Your task to perform on an android device: turn on location history Image 0: 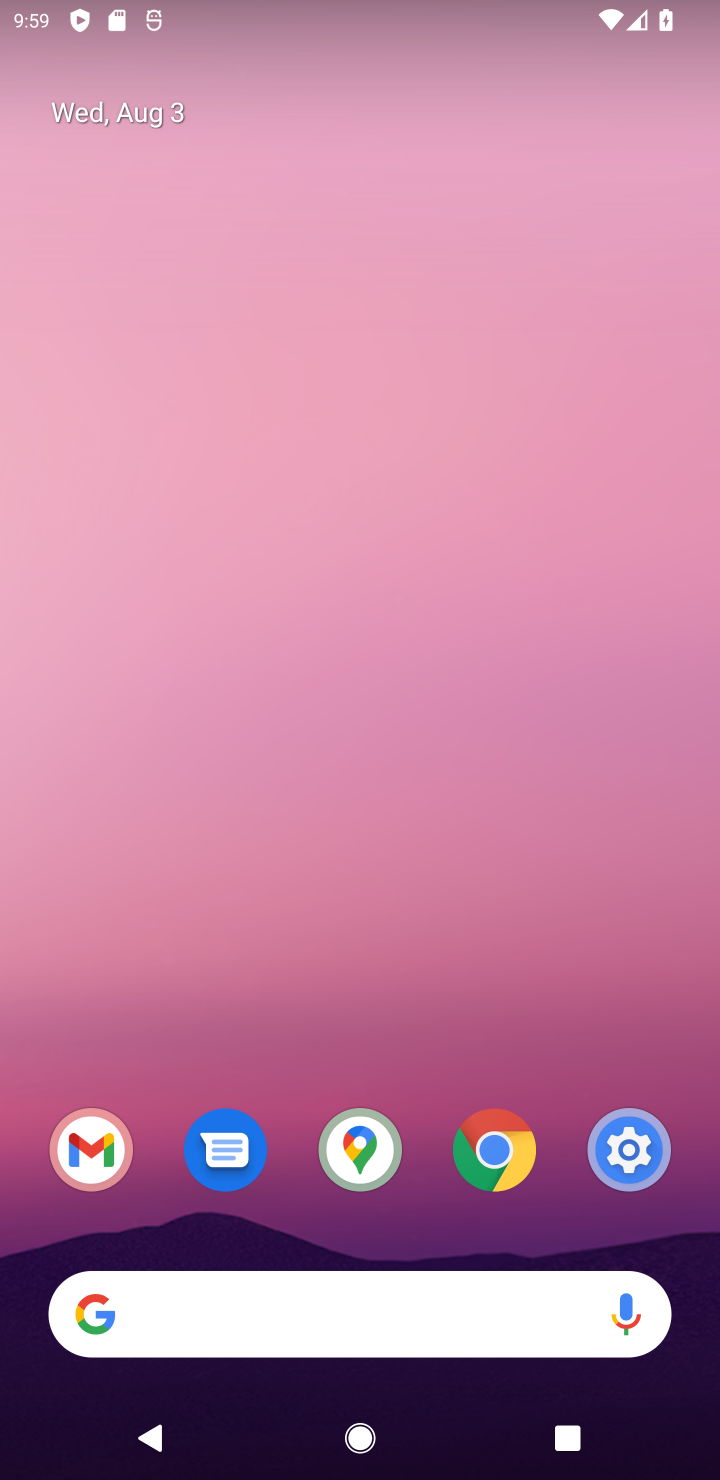
Step 0: press home button
Your task to perform on an android device: turn on location history Image 1: 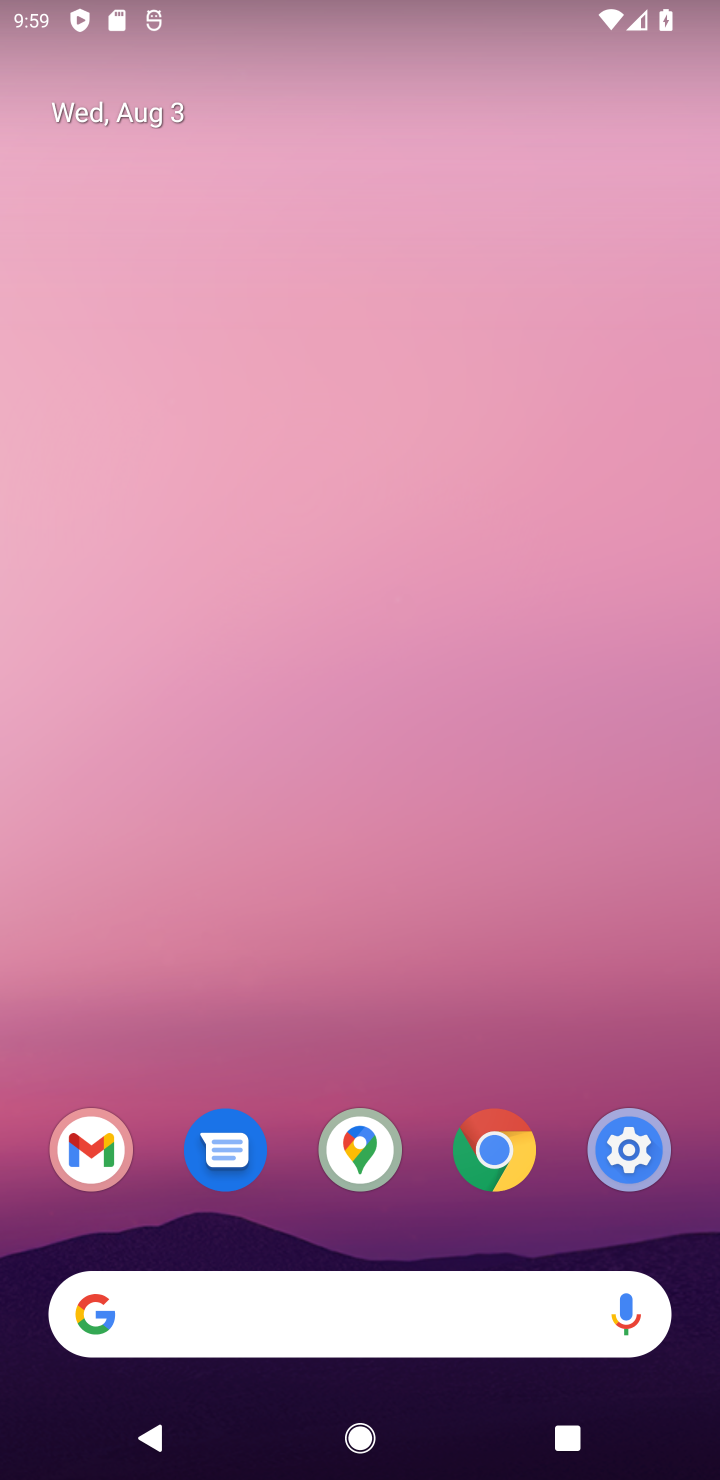
Step 1: drag from (412, 1104) to (310, 4)
Your task to perform on an android device: turn on location history Image 2: 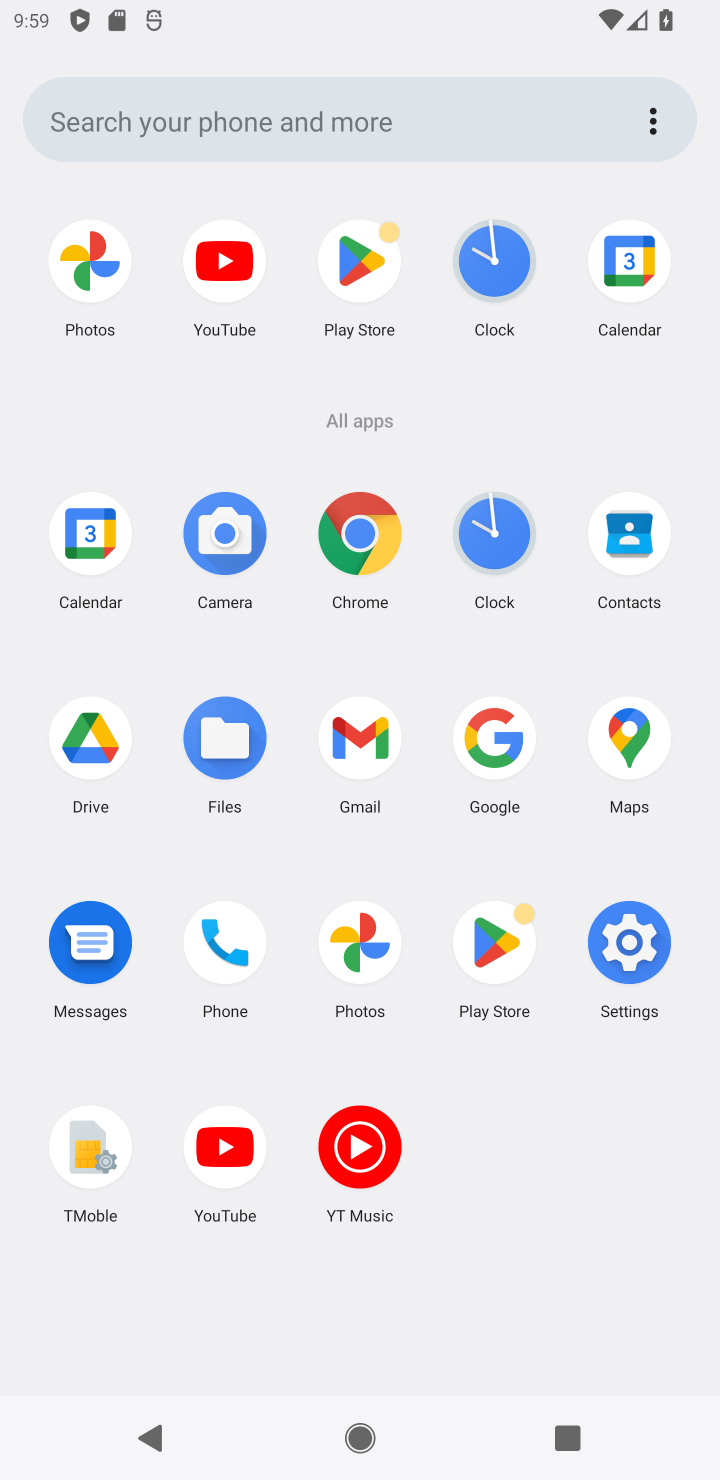
Step 2: click (627, 930)
Your task to perform on an android device: turn on location history Image 3: 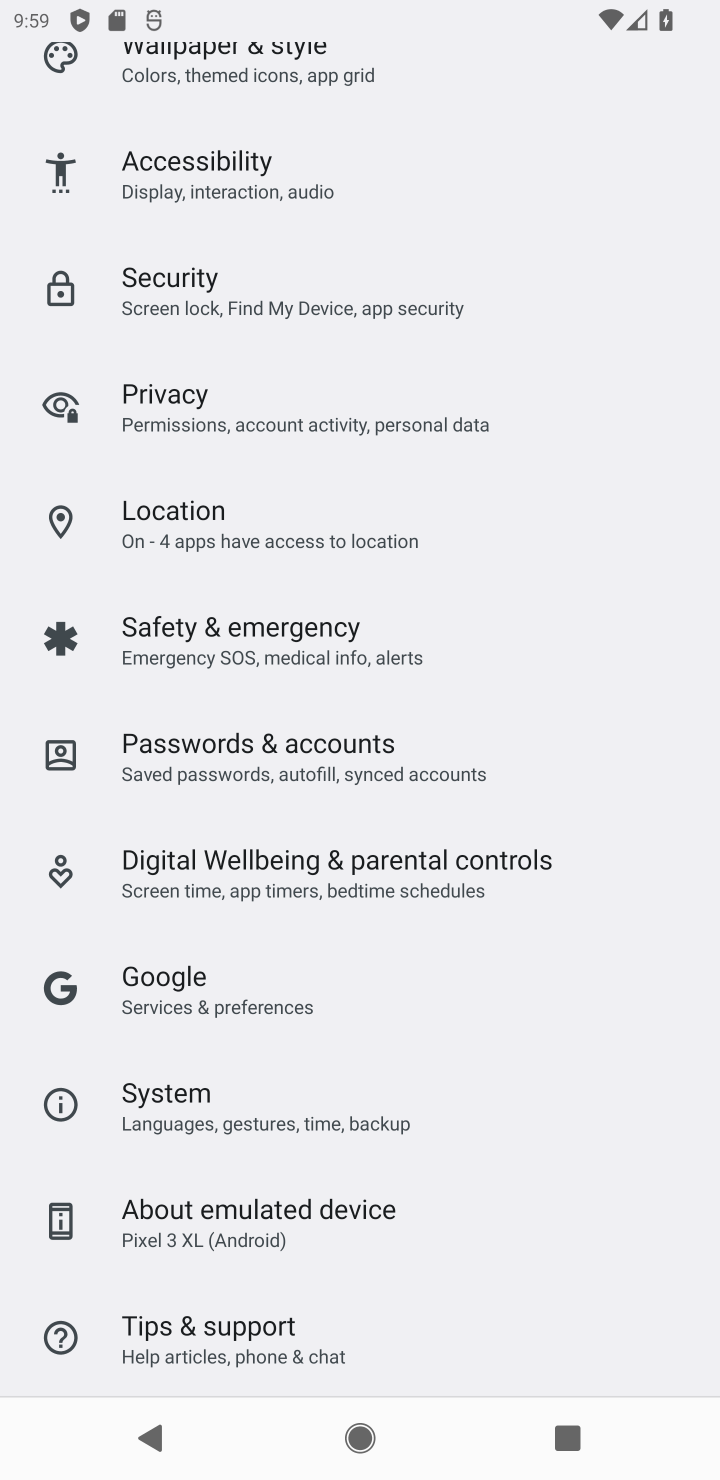
Step 3: click (245, 512)
Your task to perform on an android device: turn on location history Image 4: 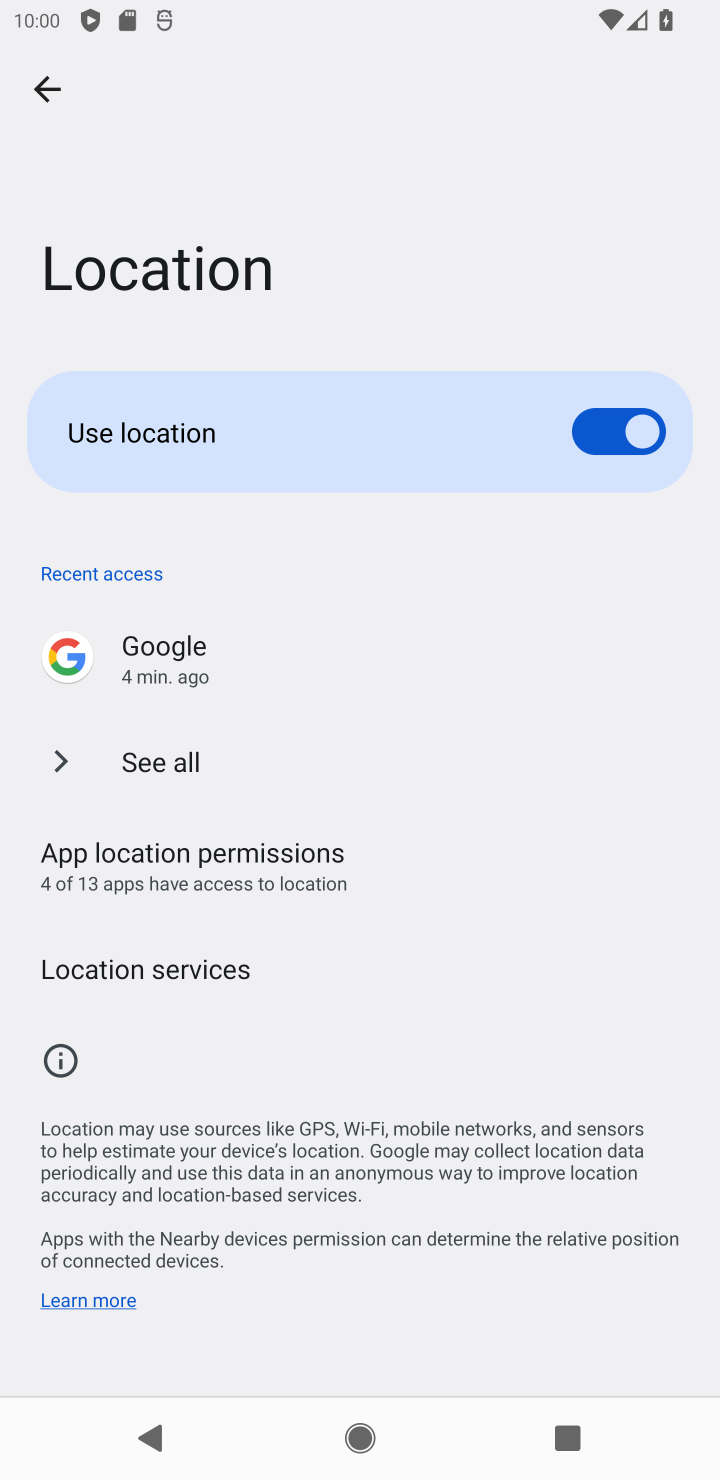
Step 4: click (154, 958)
Your task to perform on an android device: turn on location history Image 5: 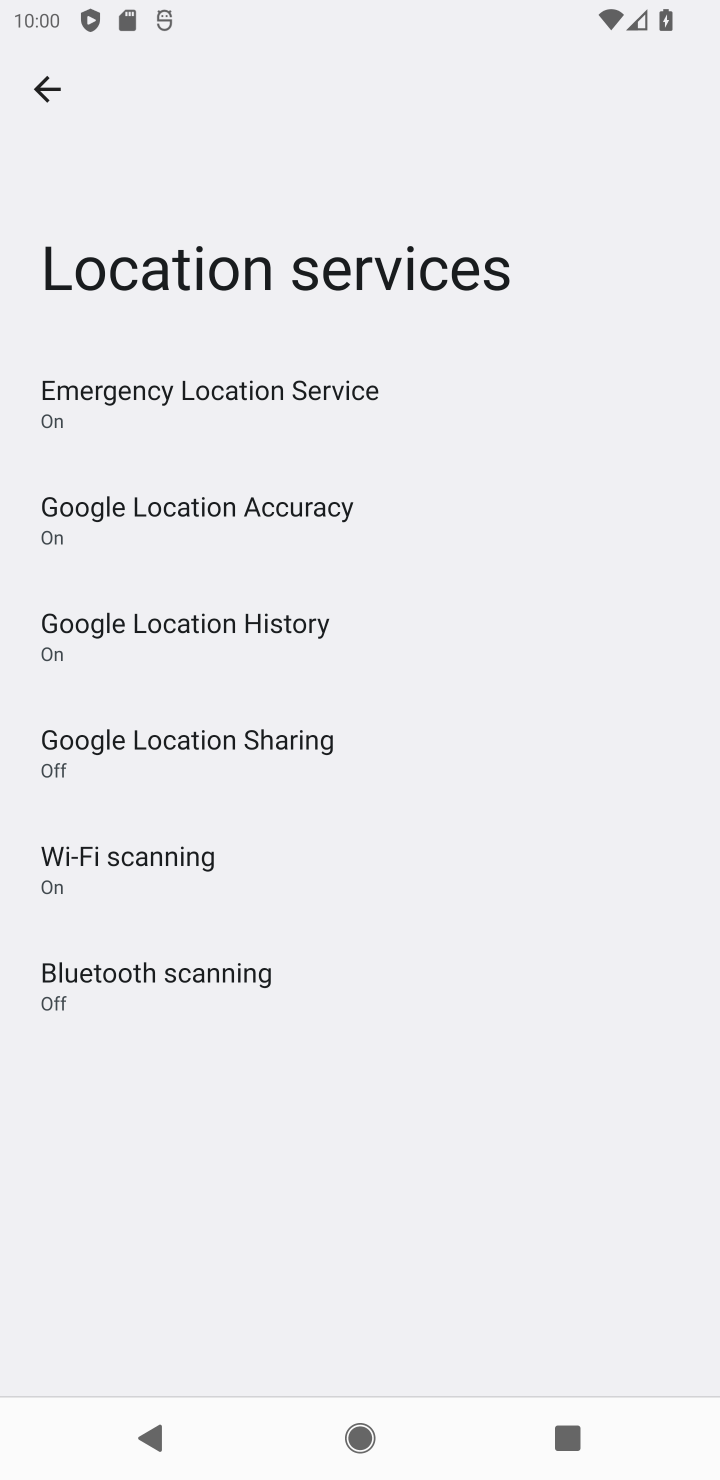
Step 5: click (231, 620)
Your task to perform on an android device: turn on location history Image 6: 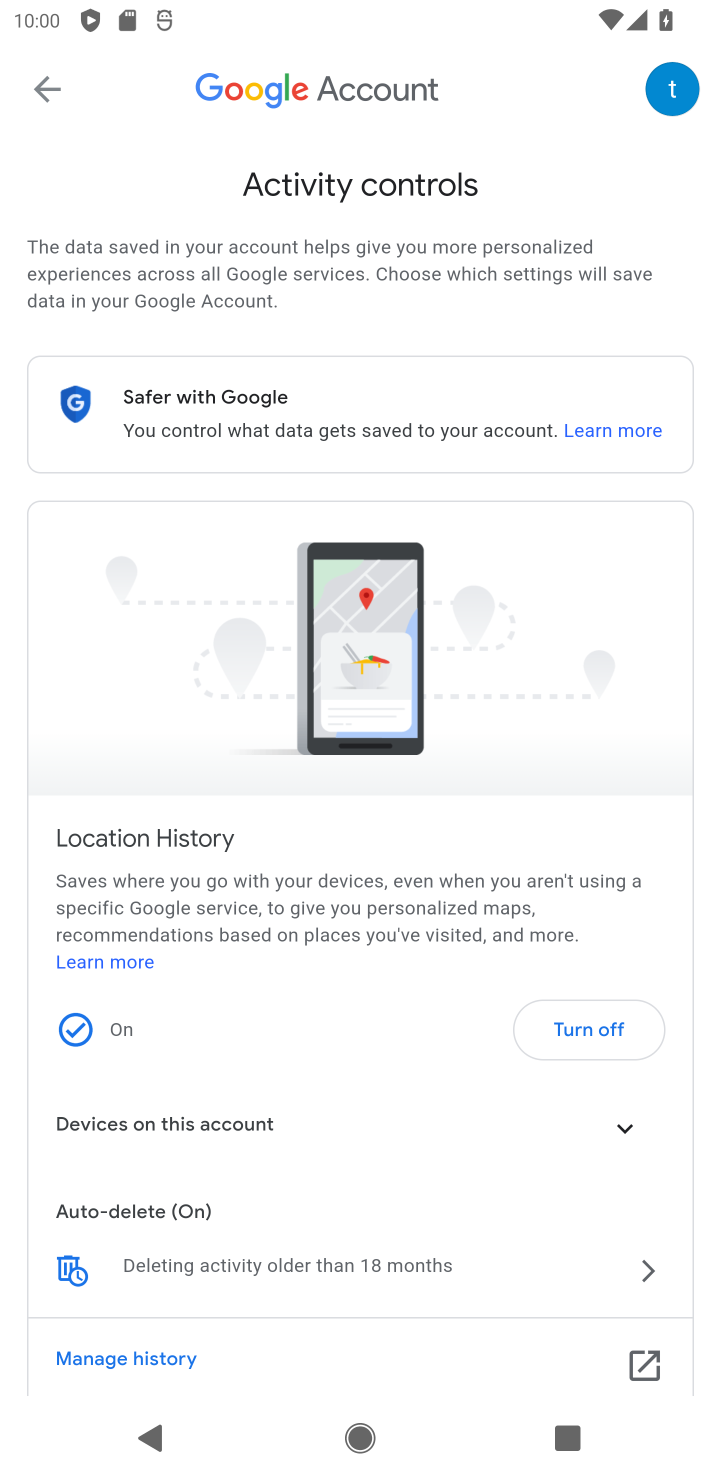
Step 6: task complete